Your task to perform on an android device: find snoozed emails in the gmail app Image 0: 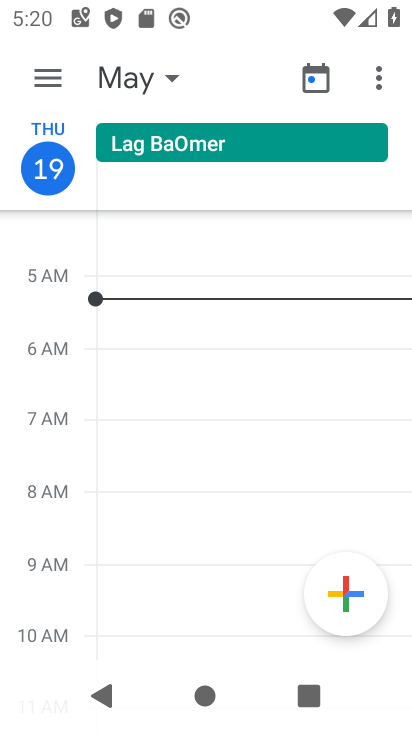
Step 0: press home button
Your task to perform on an android device: find snoozed emails in the gmail app Image 1: 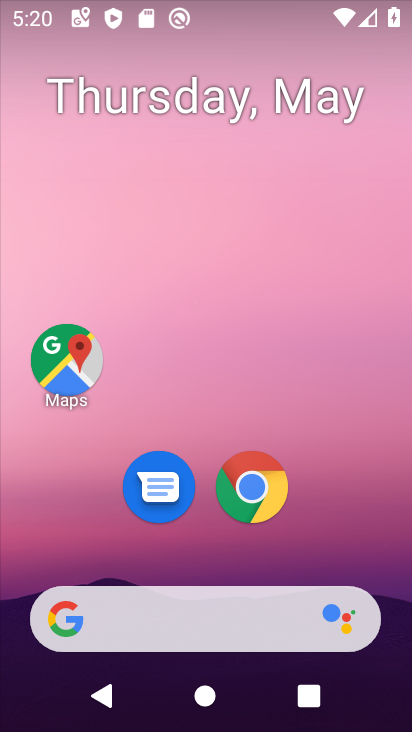
Step 1: drag from (328, 505) to (299, 62)
Your task to perform on an android device: find snoozed emails in the gmail app Image 2: 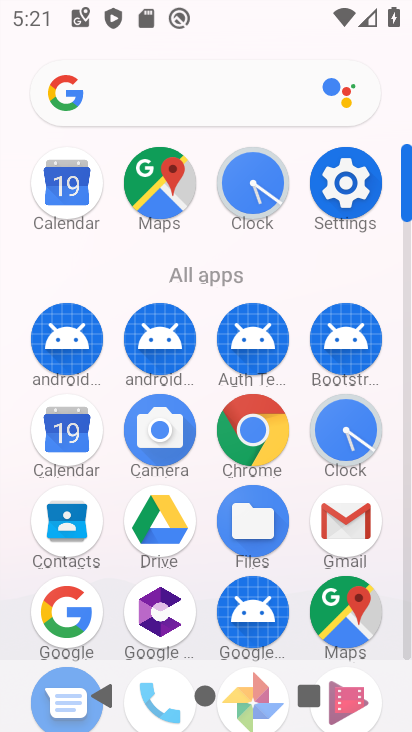
Step 2: click (334, 523)
Your task to perform on an android device: find snoozed emails in the gmail app Image 3: 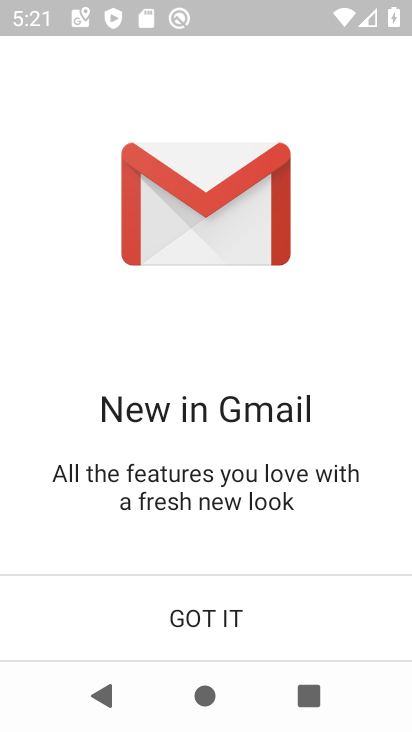
Step 3: click (301, 622)
Your task to perform on an android device: find snoozed emails in the gmail app Image 4: 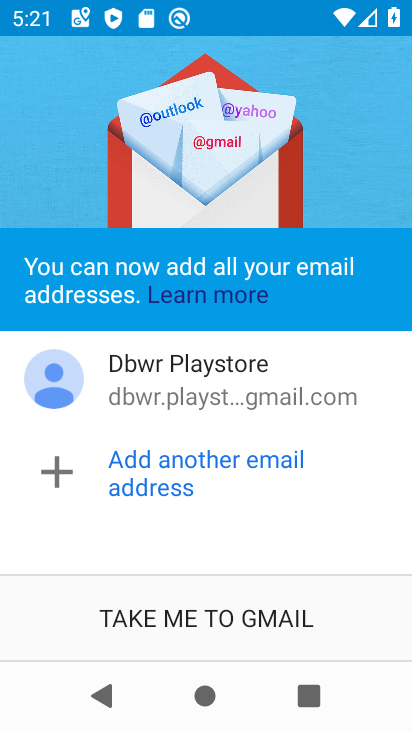
Step 4: click (301, 622)
Your task to perform on an android device: find snoozed emails in the gmail app Image 5: 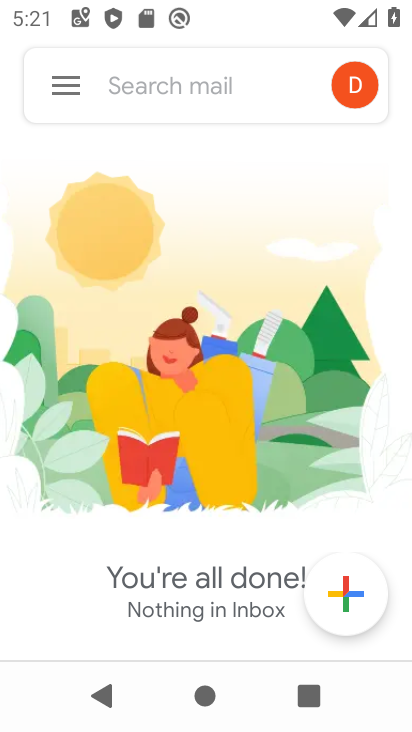
Step 5: click (54, 81)
Your task to perform on an android device: find snoozed emails in the gmail app Image 6: 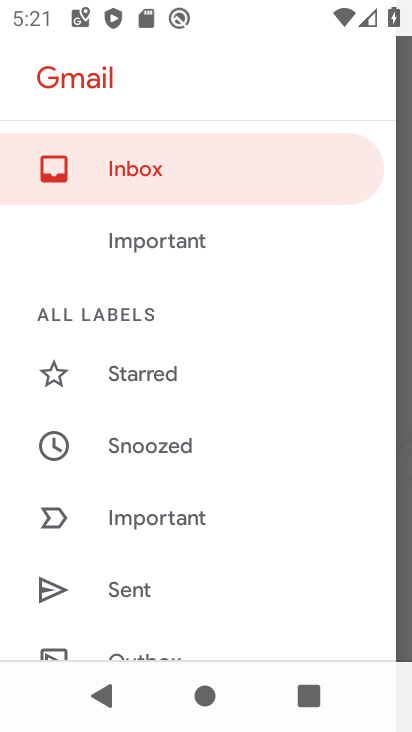
Step 6: click (173, 440)
Your task to perform on an android device: find snoozed emails in the gmail app Image 7: 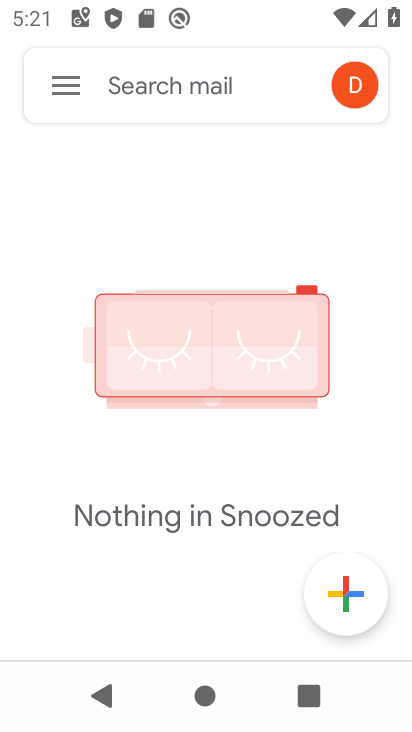
Step 7: task complete